Your task to perform on an android device: Search for Italian restaurants on Maps Image 0: 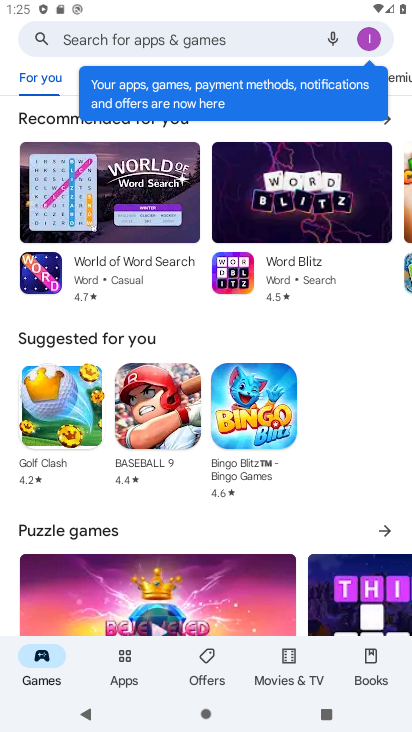
Step 0: press home button
Your task to perform on an android device: Search for Italian restaurants on Maps Image 1: 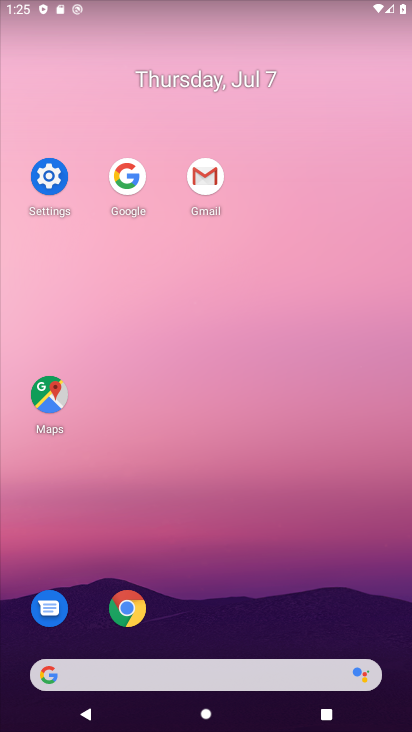
Step 1: click (49, 394)
Your task to perform on an android device: Search for Italian restaurants on Maps Image 2: 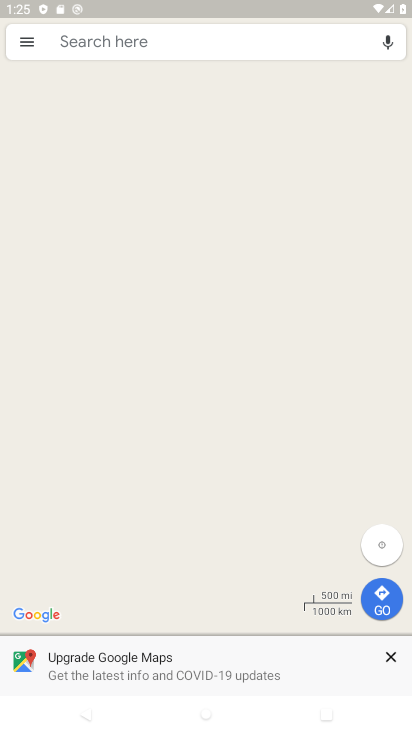
Step 2: click (167, 43)
Your task to perform on an android device: Search for Italian restaurants on Maps Image 3: 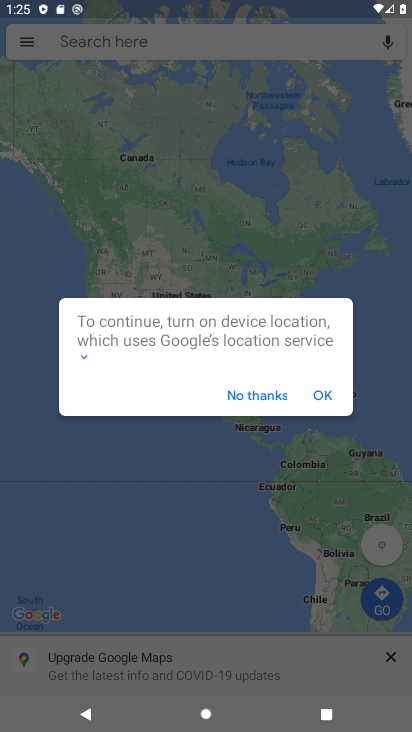
Step 3: click (317, 391)
Your task to perform on an android device: Search for Italian restaurants on Maps Image 4: 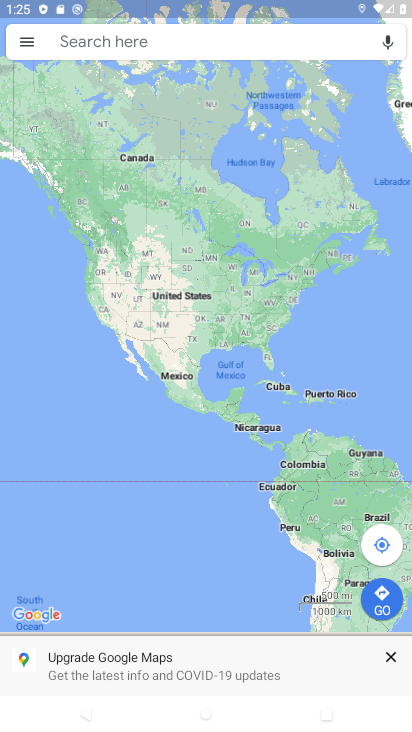
Step 4: click (228, 34)
Your task to perform on an android device: Search for Italian restaurants on Maps Image 5: 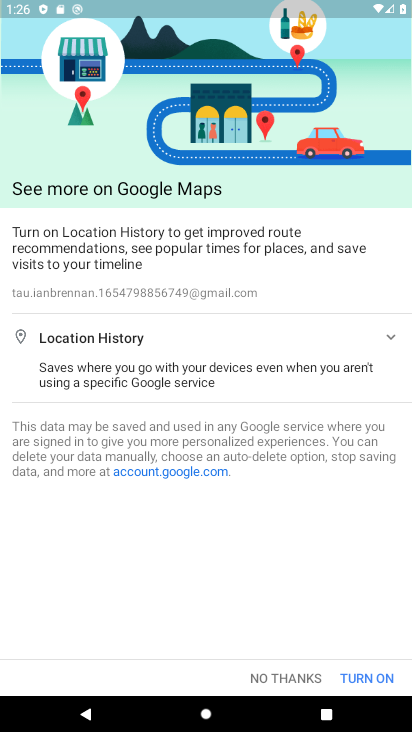
Step 5: click (367, 684)
Your task to perform on an android device: Search for Italian restaurants on Maps Image 6: 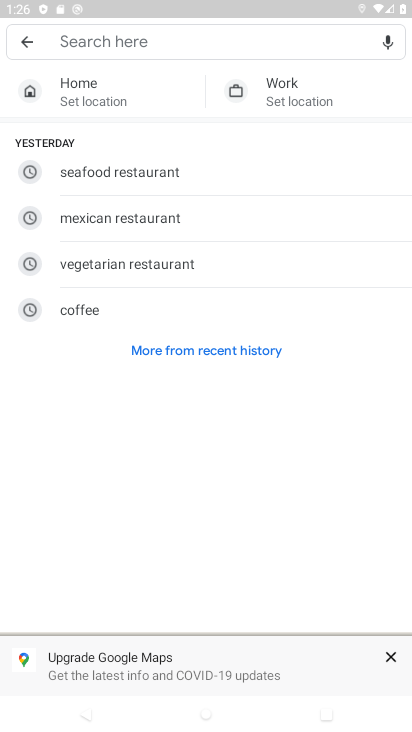
Step 6: click (184, 42)
Your task to perform on an android device: Search for Italian restaurants on Maps Image 7: 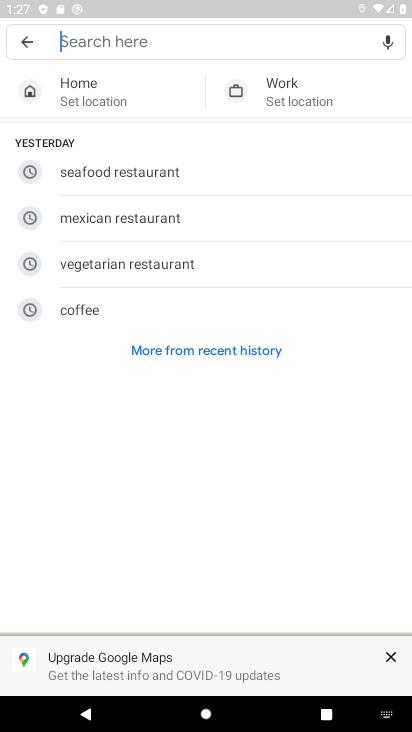
Step 7: type "italian restaurants"
Your task to perform on an android device: Search for Italian restaurants on Maps Image 8: 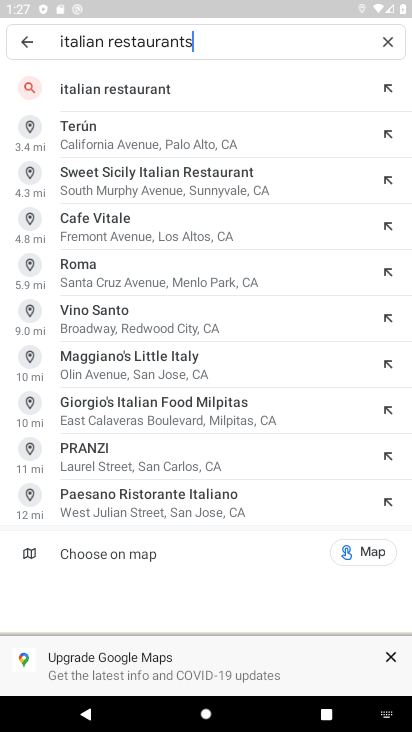
Step 8: click (143, 86)
Your task to perform on an android device: Search for Italian restaurants on Maps Image 9: 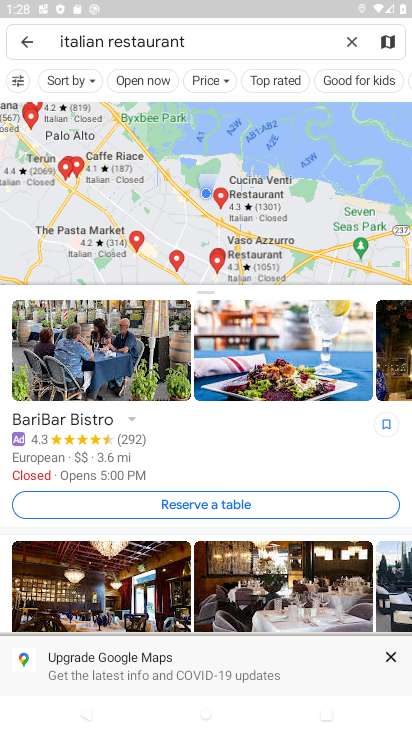
Step 9: task complete